Your task to perform on an android device: turn off improve location accuracy Image 0: 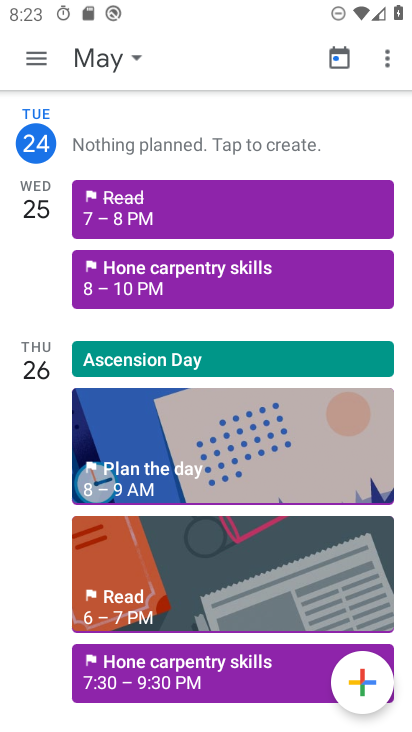
Step 0: press home button
Your task to perform on an android device: turn off improve location accuracy Image 1: 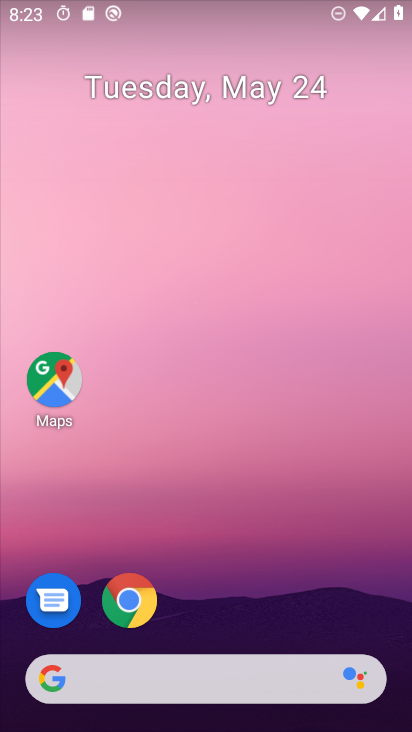
Step 1: drag from (264, 588) to (263, 3)
Your task to perform on an android device: turn off improve location accuracy Image 2: 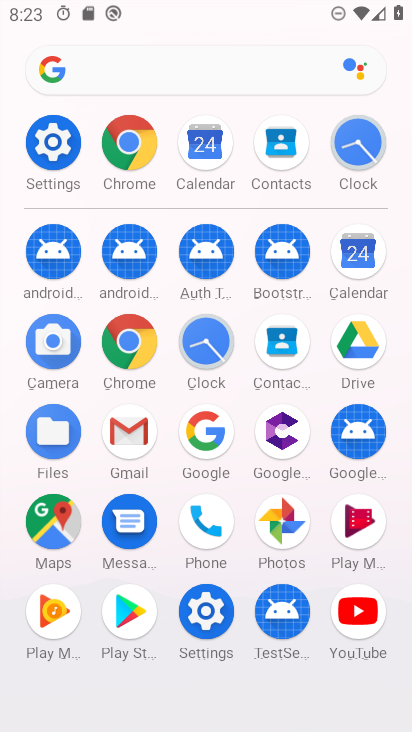
Step 2: click (43, 149)
Your task to perform on an android device: turn off improve location accuracy Image 3: 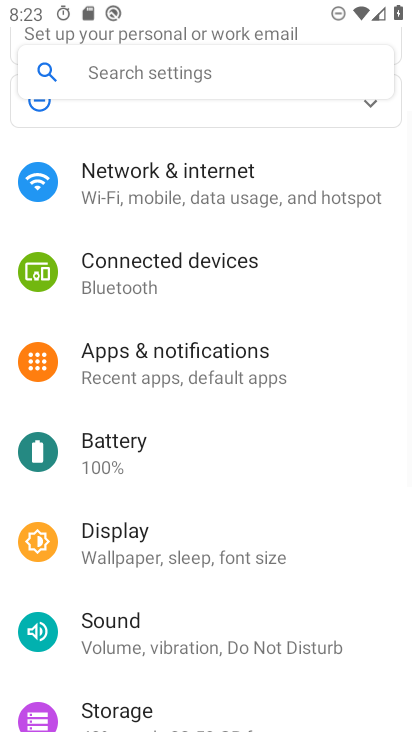
Step 3: drag from (190, 679) to (265, 152)
Your task to perform on an android device: turn off improve location accuracy Image 4: 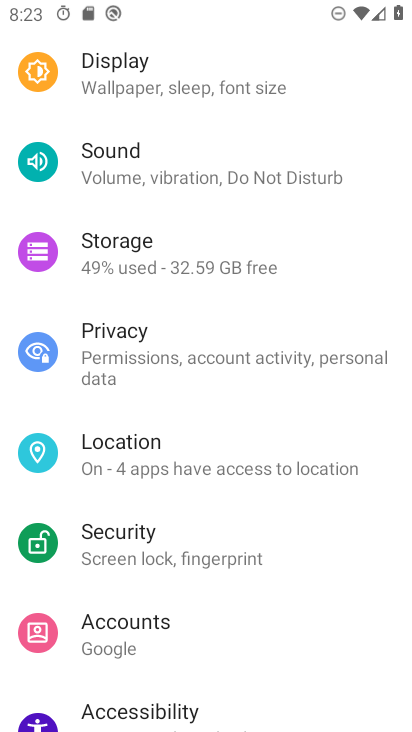
Step 4: click (184, 445)
Your task to perform on an android device: turn off improve location accuracy Image 5: 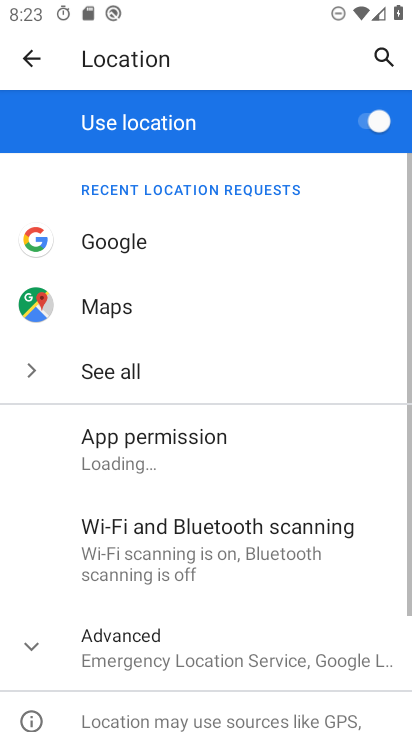
Step 5: drag from (168, 641) to (199, 411)
Your task to perform on an android device: turn off improve location accuracy Image 6: 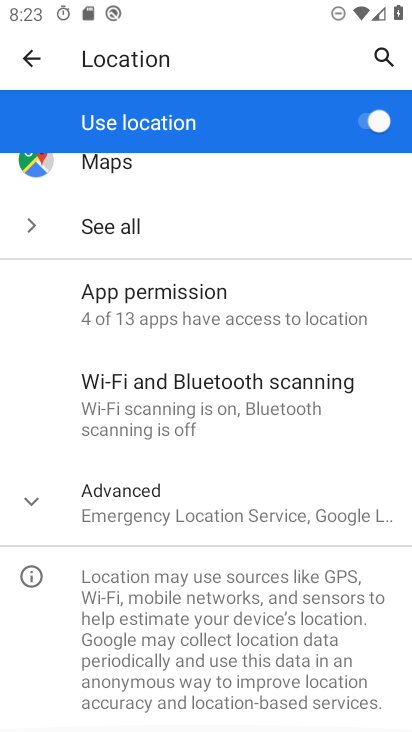
Step 6: click (180, 503)
Your task to perform on an android device: turn off improve location accuracy Image 7: 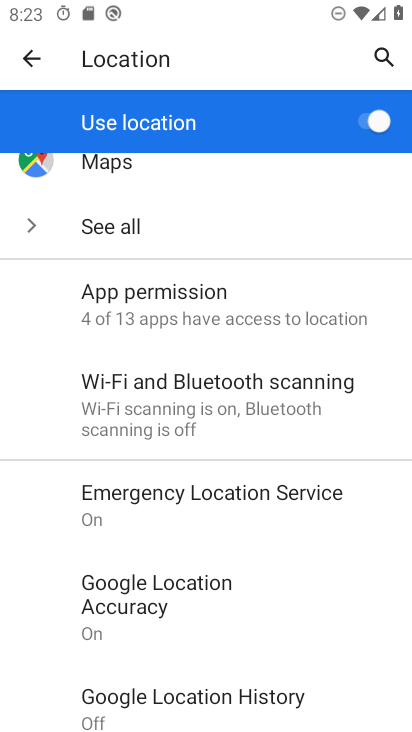
Step 7: click (148, 585)
Your task to perform on an android device: turn off improve location accuracy Image 8: 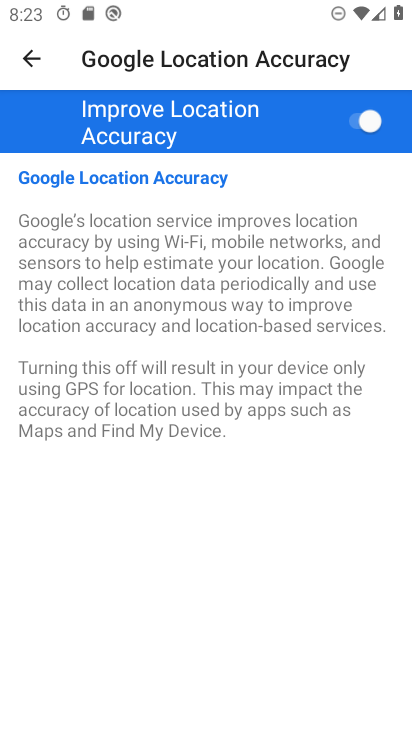
Step 8: click (364, 120)
Your task to perform on an android device: turn off improve location accuracy Image 9: 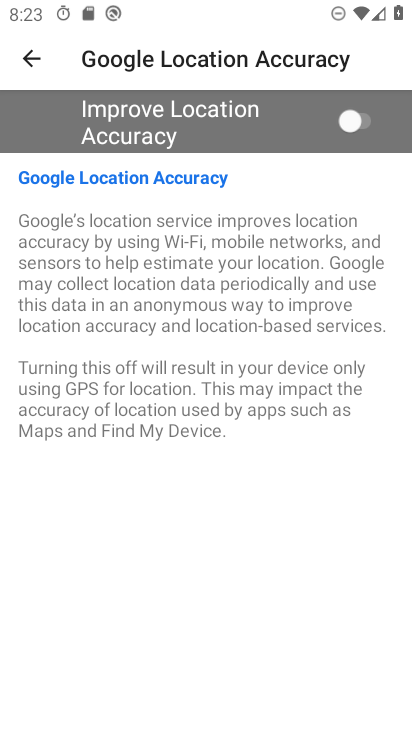
Step 9: task complete